Your task to perform on an android device: remove spam from my inbox in the gmail app Image 0: 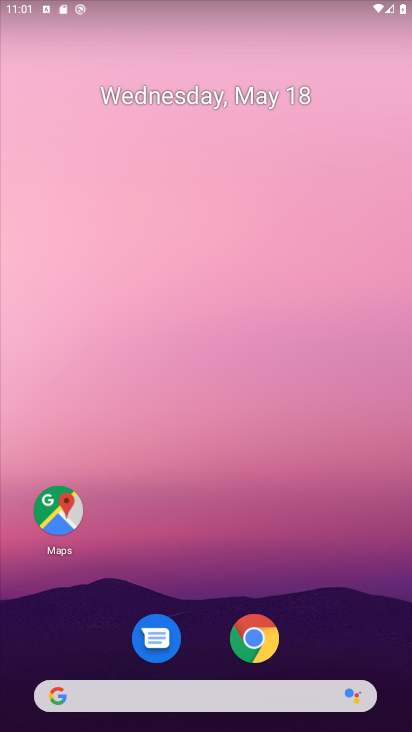
Step 0: drag from (348, 625) to (332, 32)
Your task to perform on an android device: remove spam from my inbox in the gmail app Image 1: 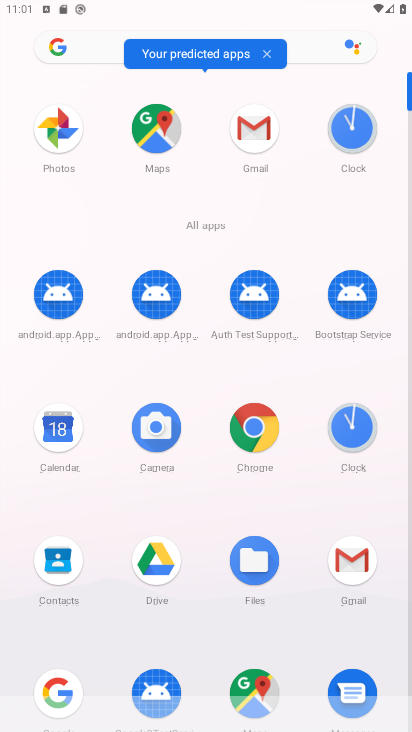
Step 1: click (354, 563)
Your task to perform on an android device: remove spam from my inbox in the gmail app Image 2: 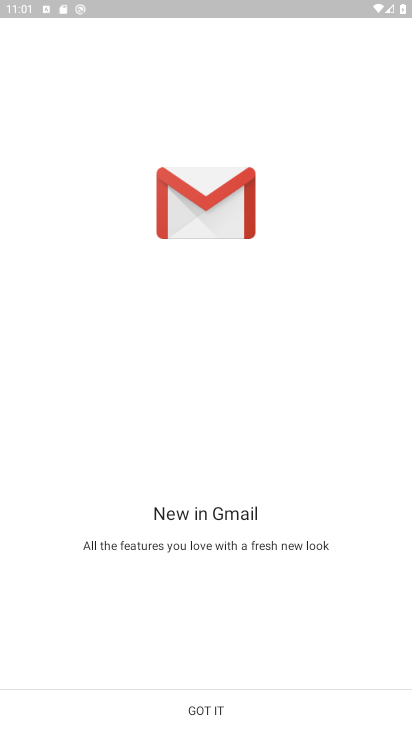
Step 2: click (207, 702)
Your task to perform on an android device: remove spam from my inbox in the gmail app Image 3: 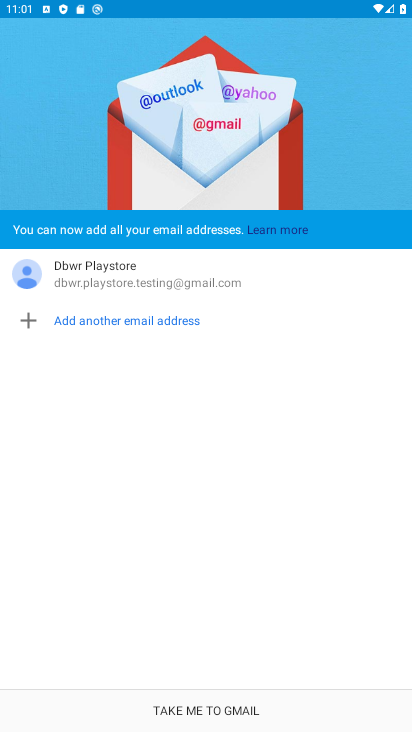
Step 3: click (207, 702)
Your task to perform on an android device: remove spam from my inbox in the gmail app Image 4: 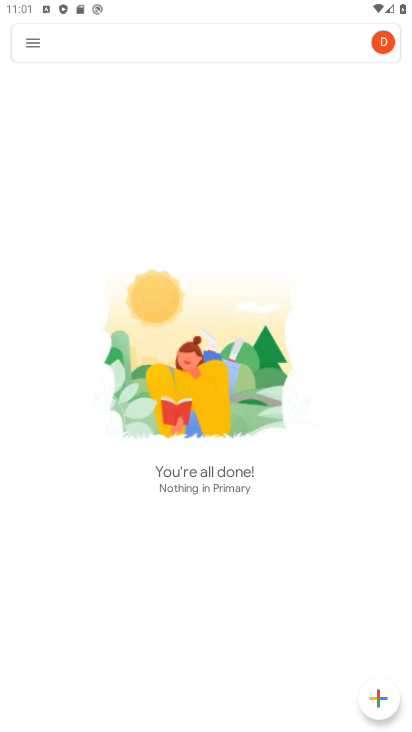
Step 4: click (35, 46)
Your task to perform on an android device: remove spam from my inbox in the gmail app Image 5: 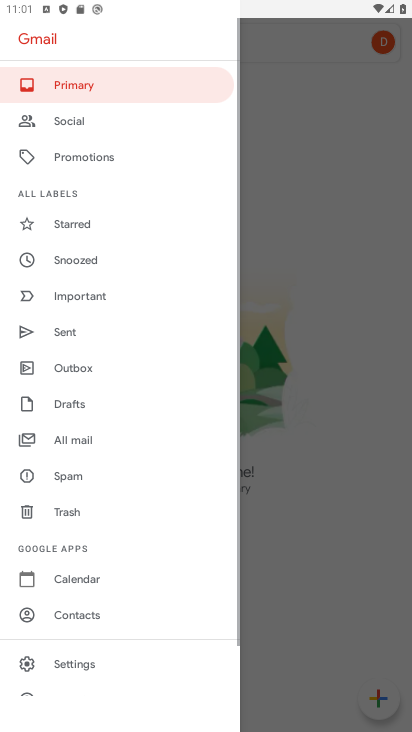
Step 5: click (81, 90)
Your task to perform on an android device: remove spam from my inbox in the gmail app Image 6: 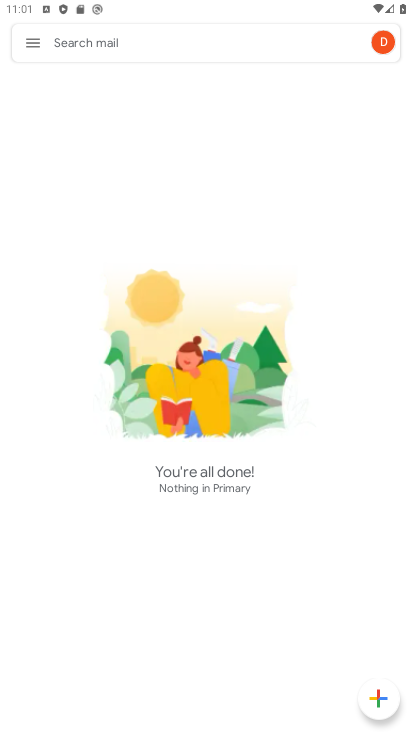
Step 6: task complete